Your task to perform on an android device: add a contact in the contacts app Image 0: 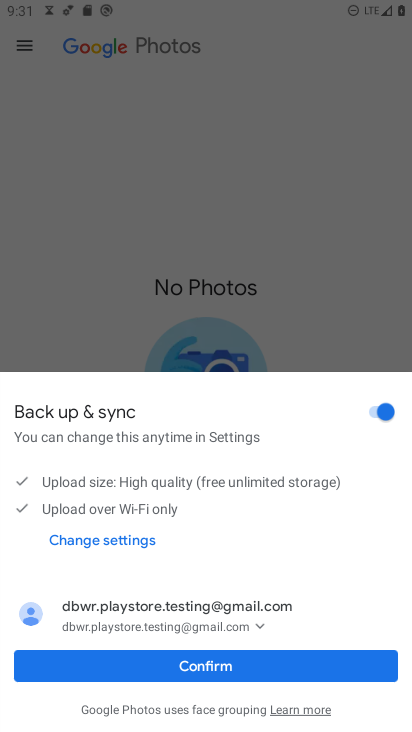
Step 0: press home button
Your task to perform on an android device: add a contact in the contacts app Image 1: 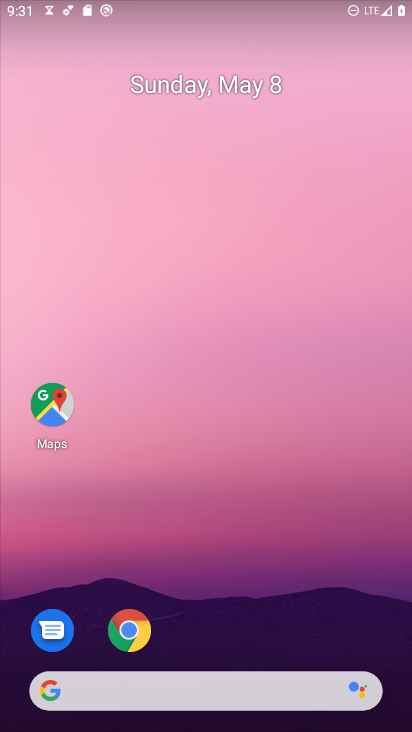
Step 1: drag from (161, 702) to (338, 200)
Your task to perform on an android device: add a contact in the contacts app Image 2: 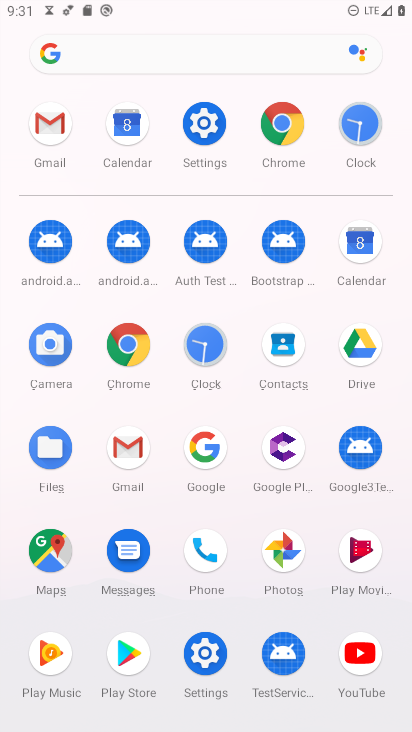
Step 2: click (292, 354)
Your task to perform on an android device: add a contact in the contacts app Image 3: 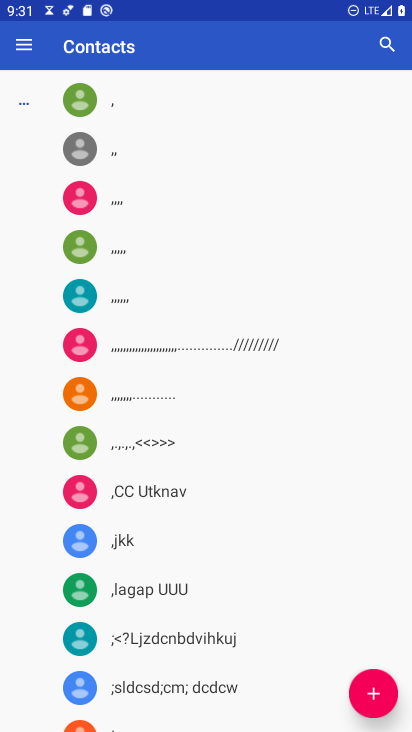
Step 3: click (369, 695)
Your task to perform on an android device: add a contact in the contacts app Image 4: 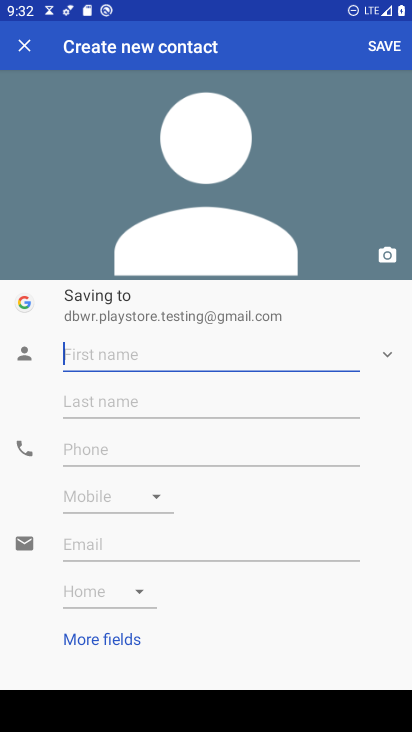
Step 4: click (90, 350)
Your task to perform on an android device: add a contact in the contacts app Image 5: 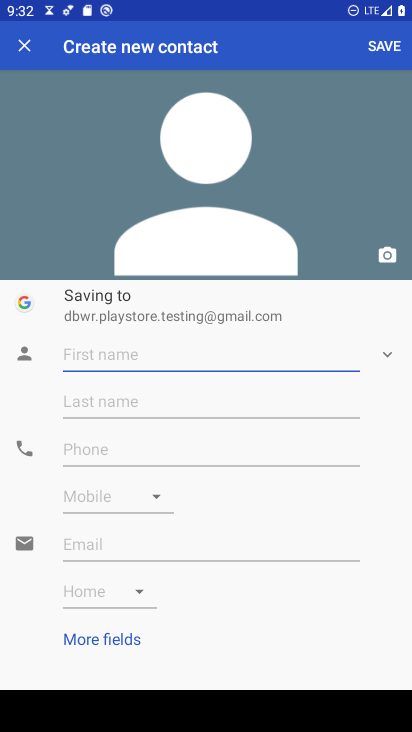
Step 5: type "xekljhy"
Your task to perform on an android device: add a contact in the contacts app Image 6: 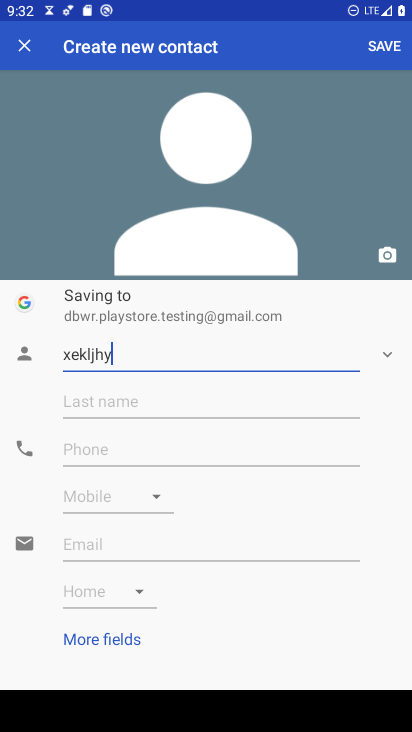
Step 6: click (105, 454)
Your task to perform on an android device: add a contact in the contacts app Image 7: 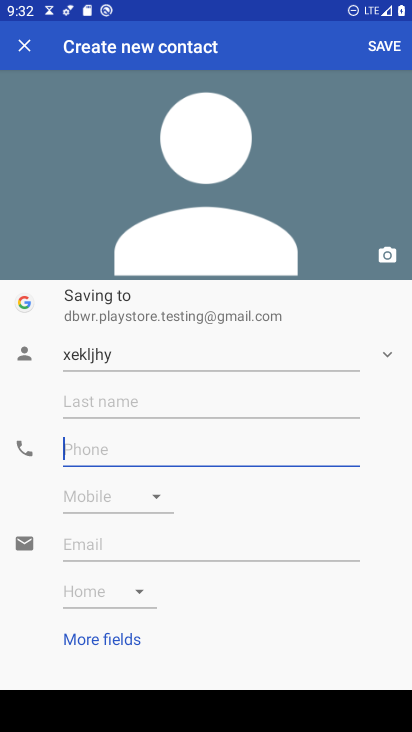
Step 7: type "3765"
Your task to perform on an android device: add a contact in the contacts app Image 8: 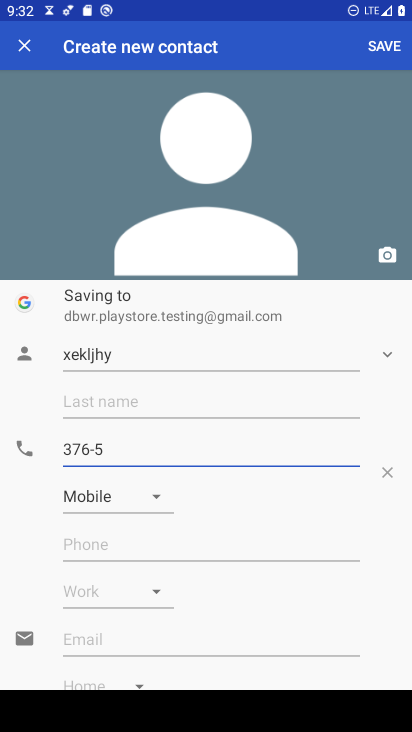
Step 8: click (380, 48)
Your task to perform on an android device: add a contact in the contacts app Image 9: 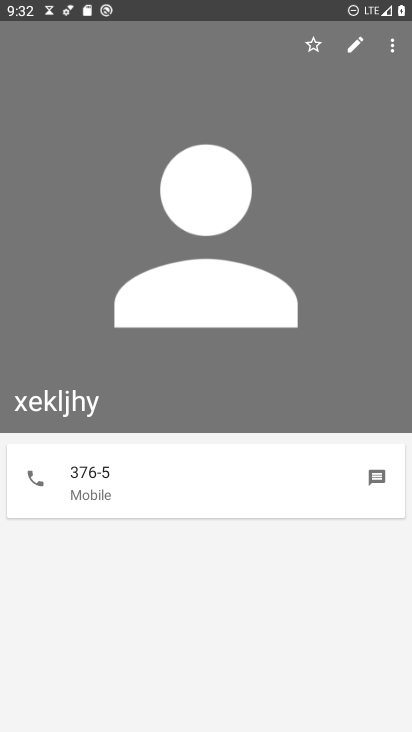
Step 9: task complete